Your task to perform on an android device: Turn off the flashlight Image 0: 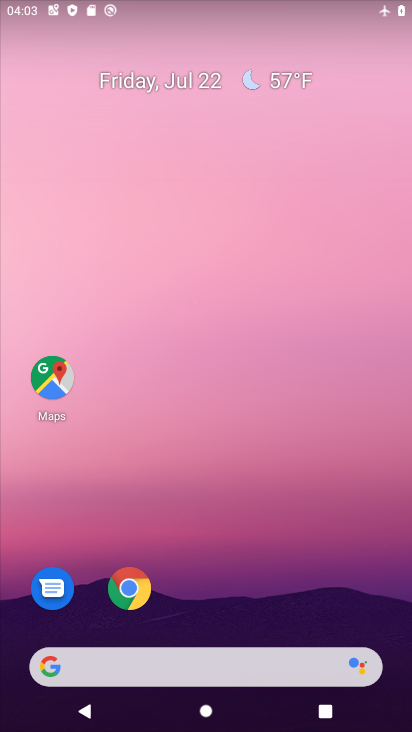
Step 0: drag from (148, 649) to (331, 522)
Your task to perform on an android device: Turn off the flashlight Image 1: 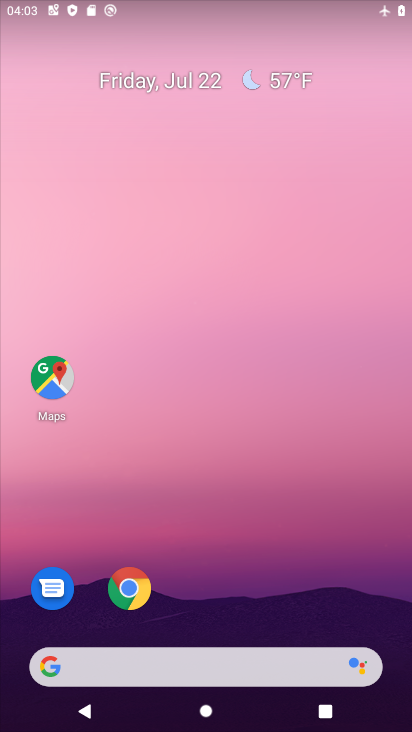
Step 1: drag from (194, 522) to (158, 162)
Your task to perform on an android device: Turn off the flashlight Image 2: 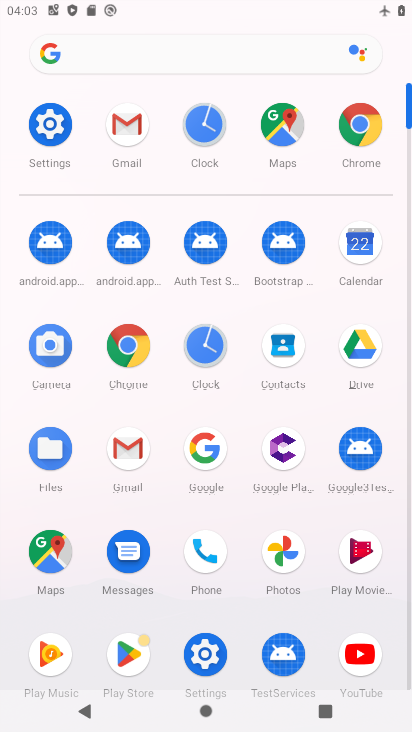
Step 2: click (212, 644)
Your task to perform on an android device: Turn off the flashlight Image 3: 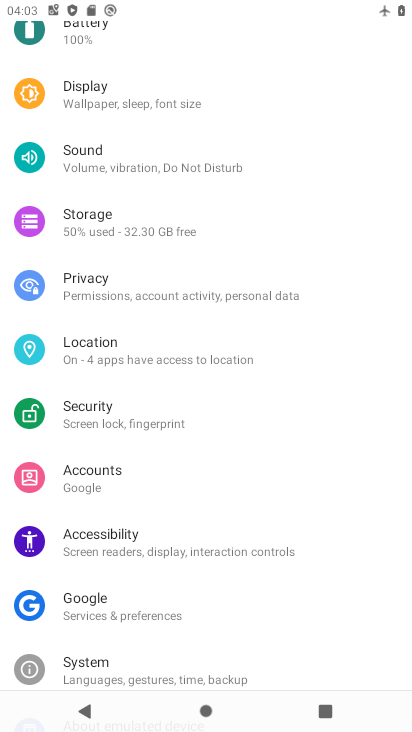
Step 3: task complete